Your task to perform on an android device: turn on translation in the chrome app Image 0: 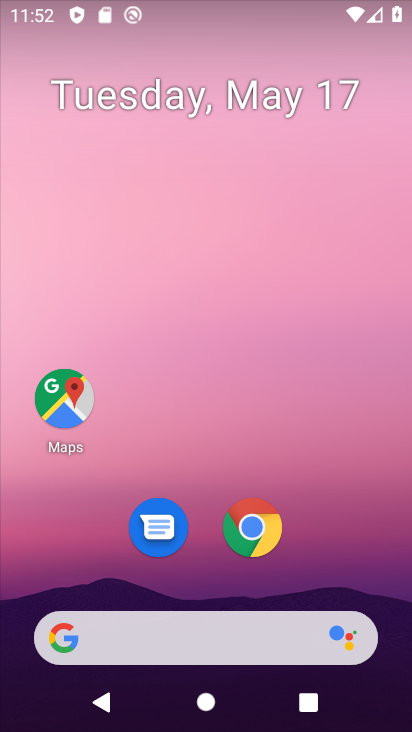
Step 0: click (274, 520)
Your task to perform on an android device: turn on translation in the chrome app Image 1: 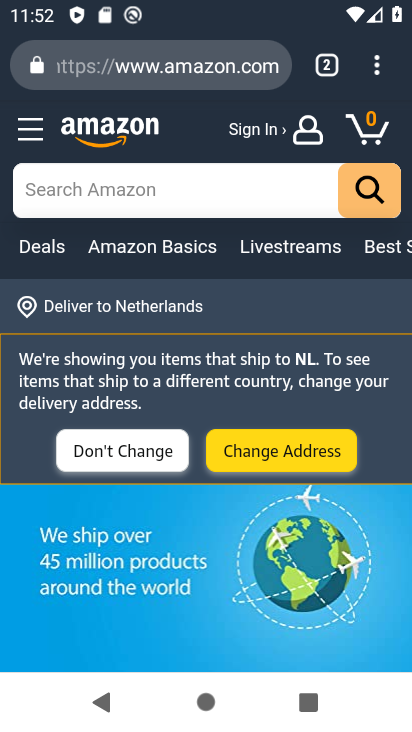
Step 1: click (377, 67)
Your task to perform on an android device: turn on translation in the chrome app Image 2: 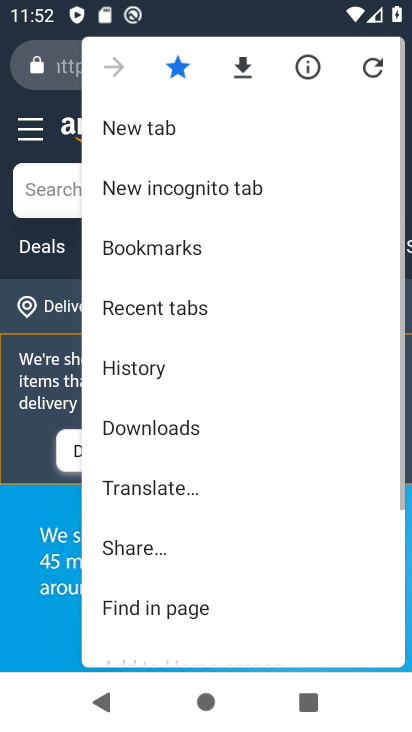
Step 2: drag from (264, 572) to (218, 133)
Your task to perform on an android device: turn on translation in the chrome app Image 3: 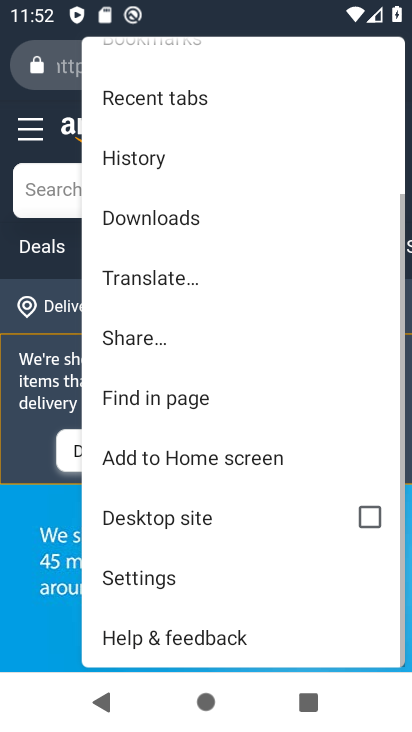
Step 3: click (258, 577)
Your task to perform on an android device: turn on translation in the chrome app Image 4: 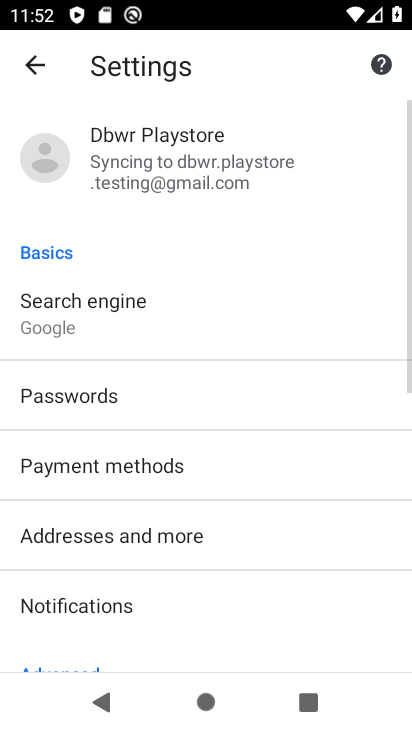
Step 4: drag from (243, 552) to (241, 208)
Your task to perform on an android device: turn on translation in the chrome app Image 5: 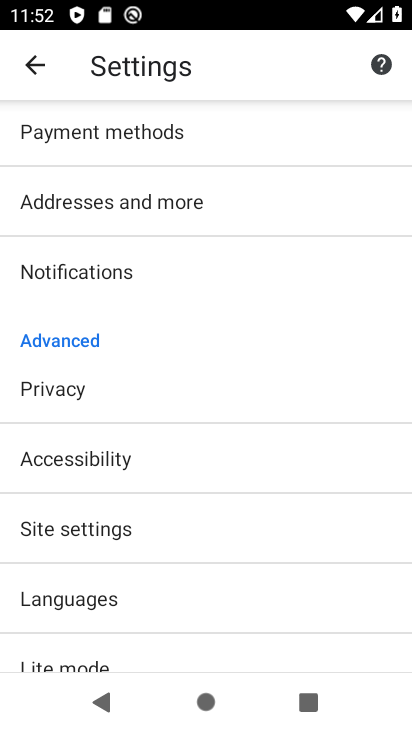
Step 5: drag from (216, 593) to (223, 262)
Your task to perform on an android device: turn on translation in the chrome app Image 6: 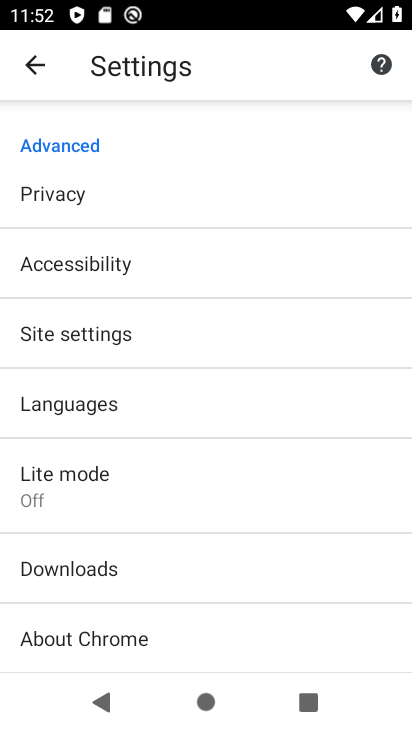
Step 6: click (160, 411)
Your task to perform on an android device: turn on translation in the chrome app Image 7: 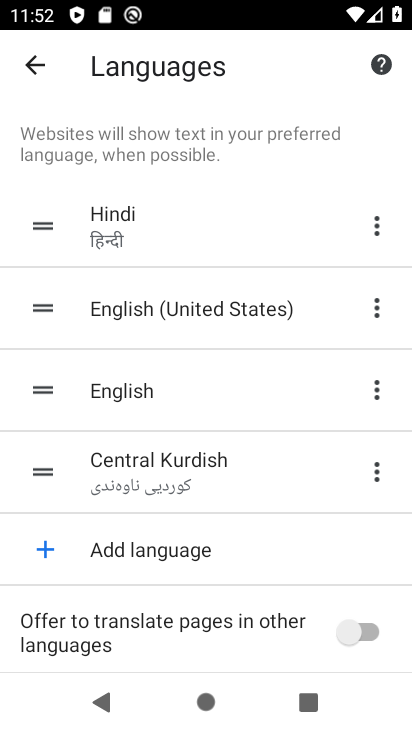
Step 7: click (353, 627)
Your task to perform on an android device: turn on translation in the chrome app Image 8: 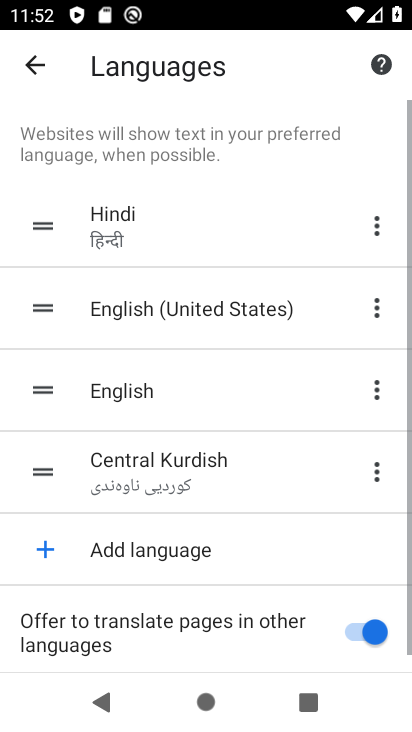
Step 8: task complete